Your task to perform on an android device: clear all cookies in the chrome app Image 0: 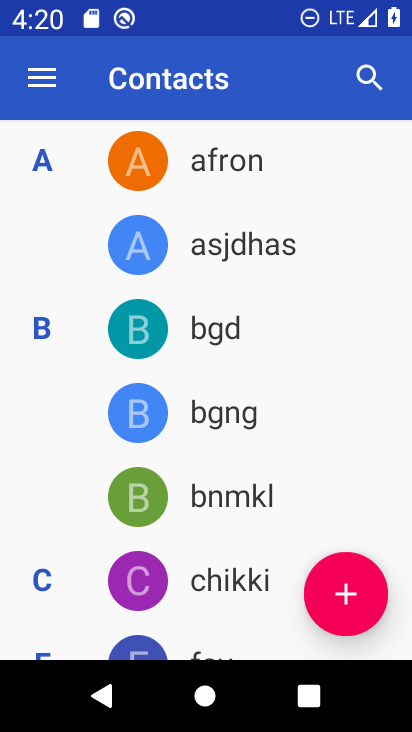
Step 0: press back button
Your task to perform on an android device: clear all cookies in the chrome app Image 1: 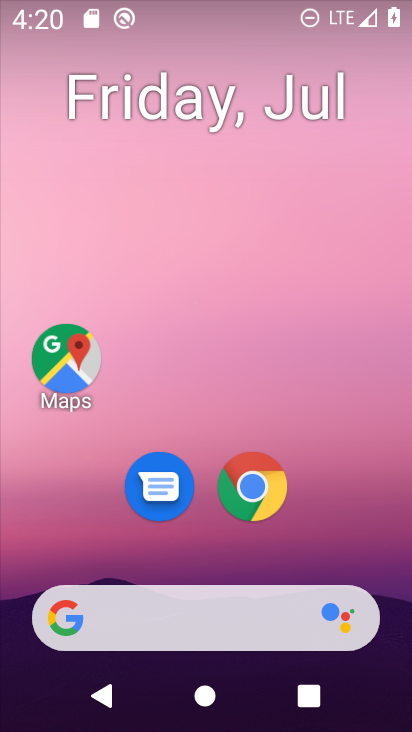
Step 1: click (238, 496)
Your task to perform on an android device: clear all cookies in the chrome app Image 2: 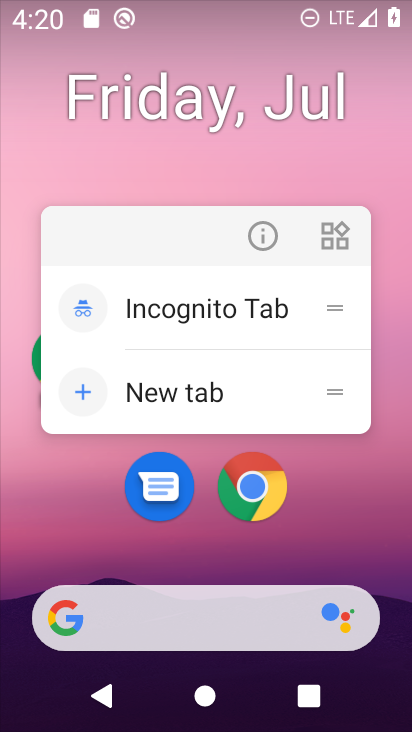
Step 2: click (240, 499)
Your task to perform on an android device: clear all cookies in the chrome app Image 3: 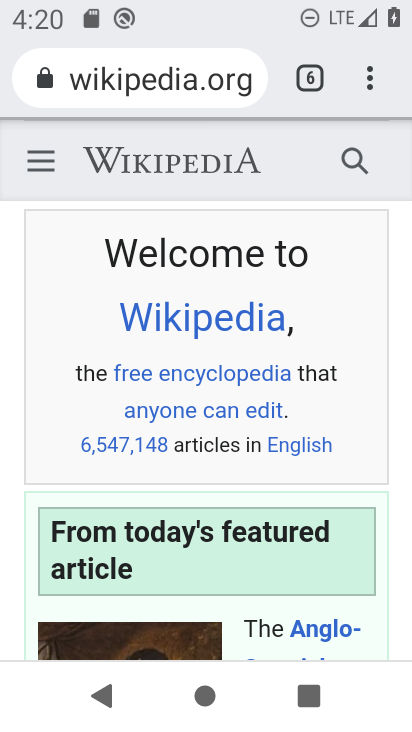
Step 3: drag from (372, 77) to (207, 547)
Your task to perform on an android device: clear all cookies in the chrome app Image 4: 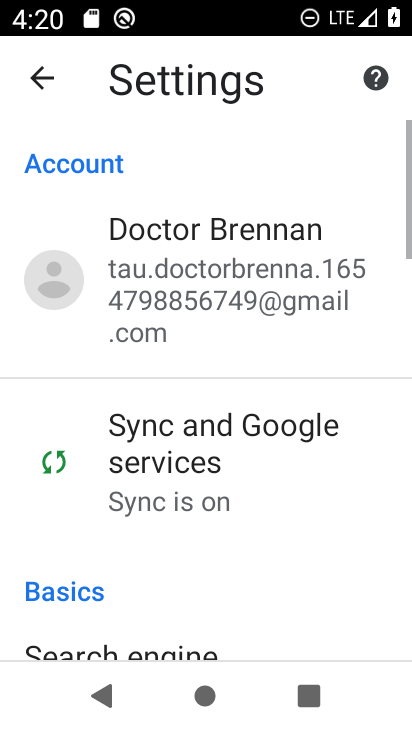
Step 4: drag from (157, 582) to (233, 153)
Your task to perform on an android device: clear all cookies in the chrome app Image 5: 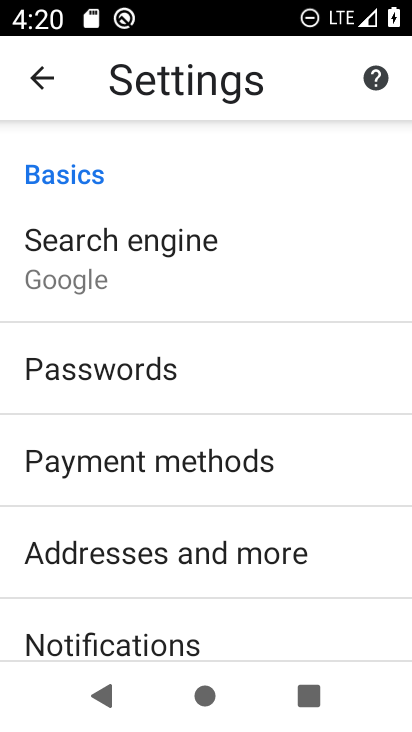
Step 5: click (54, 67)
Your task to perform on an android device: clear all cookies in the chrome app Image 6: 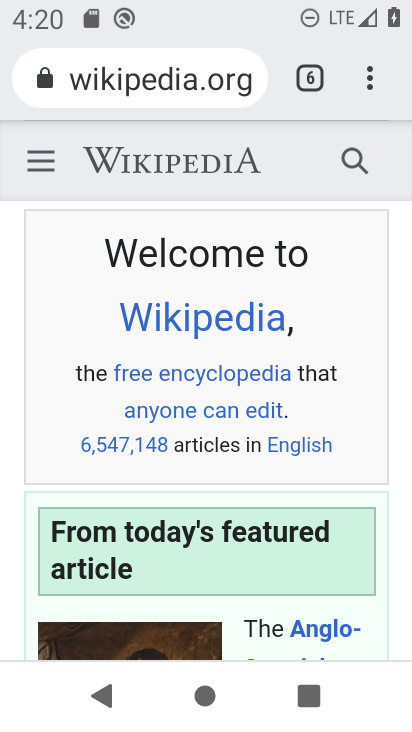
Step 6: drag from (380, 74) to (122, 437)
Your task to perform on an android device: clear all cookies in the chrome app Image 7: 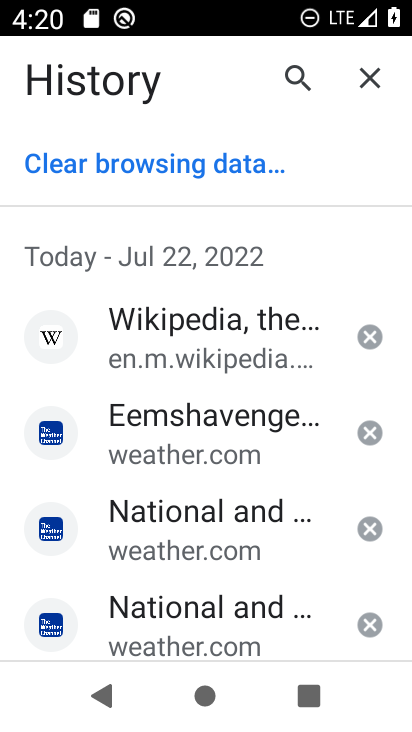
Step 7: click (140, 162)
Your task to perform on an android device: clear all cookies in the chrome app Image 8: 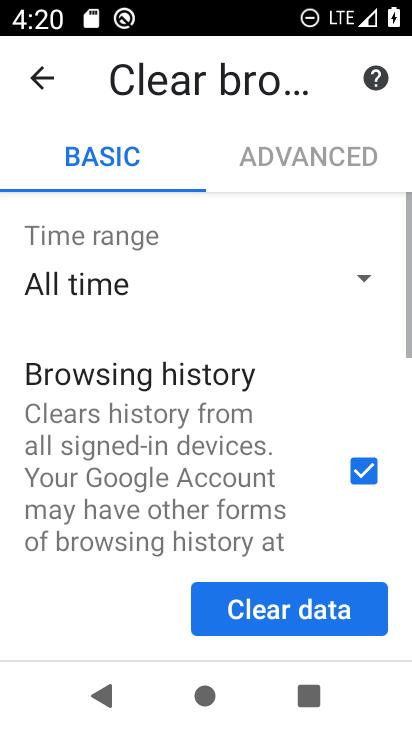
Step 8: click (358, 471)
Your task to perform on an android device: clear all cookies in the chrome app Image 9: 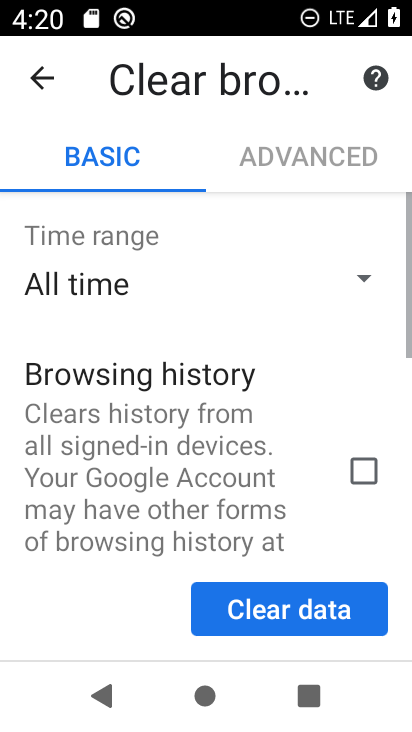
Step 9: drag from (177, 515) to (237, 200)
Your task to perform on an android device: clear all cookies in the chrome app Image 10: 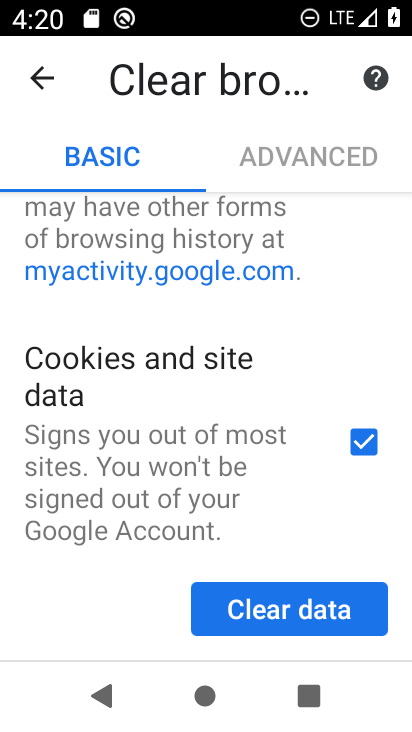
Step 10: drag from (174, 503) to (216, 216)
Your task to perform on an android device: clear all cookies in the chrome app Image 11: 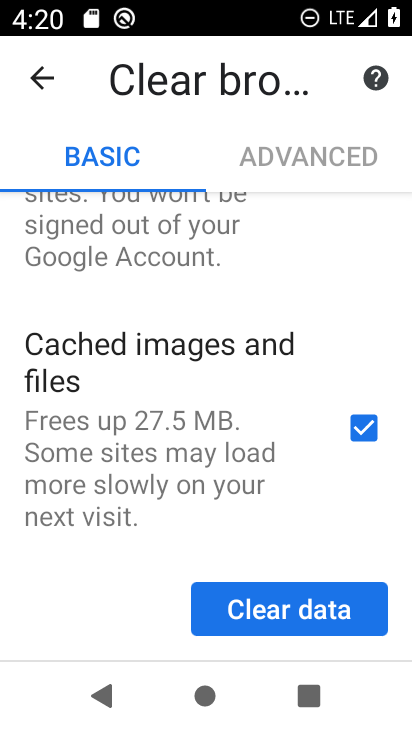
Step 11: click (360, 417)
Your task to perform on an android device: clear all cookies in the chrome app Image 12: 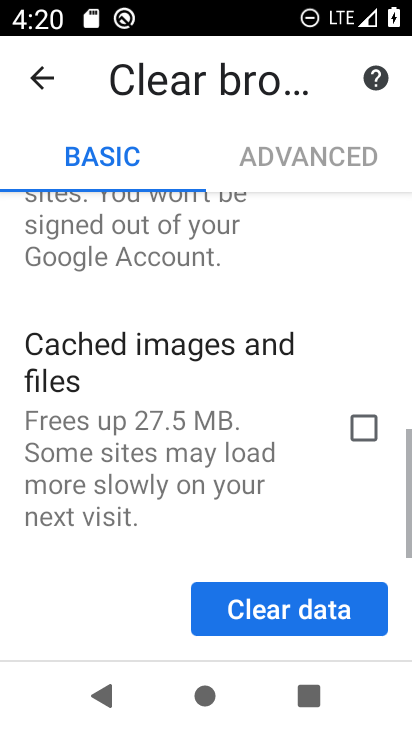
Step 12: click (268, 600)
Your task to perform on an android device: clear all cookies in the chrome app Image 13: 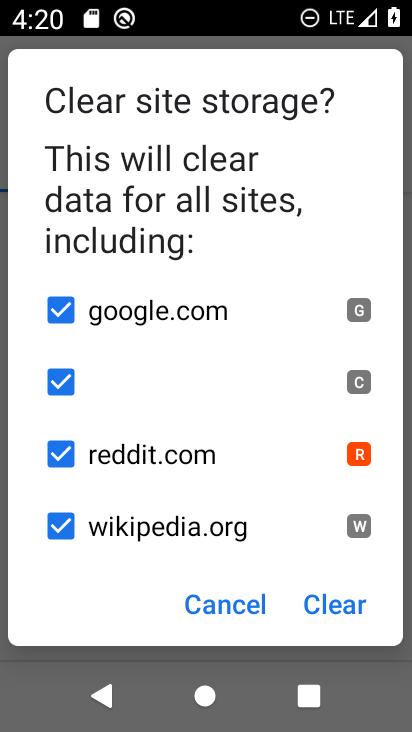
Step 13: click (334, 618)
Your task to perform on an android device: clear all cookies in the chrome app Image 14: 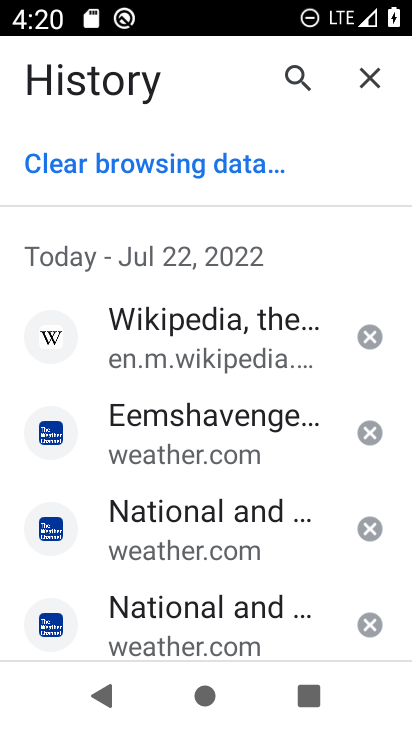
Step 14: task complete